Your task to perform on an android device: toggle airplane mode Image 0: 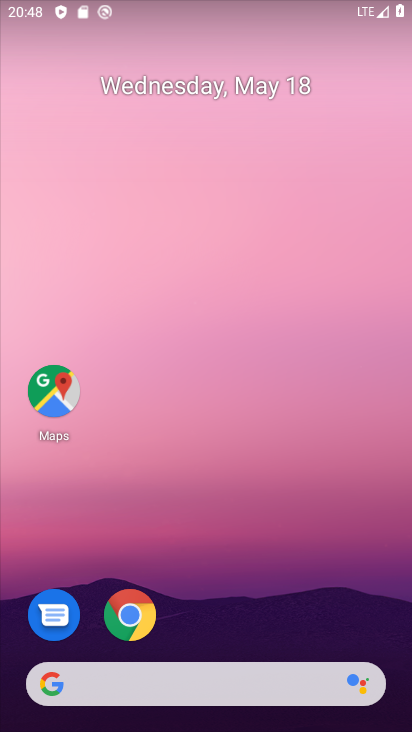
Step 0: drag from (200, 681) to (185, 251)
Your task to perform on an android device: toggle airplane mode Image 1: 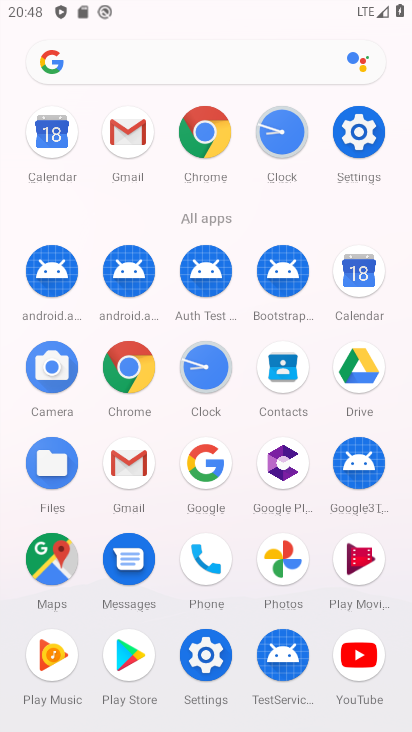
Step 1: click (366, 136)
Your task to perform on an android device: toggle airplane mode Image 2: 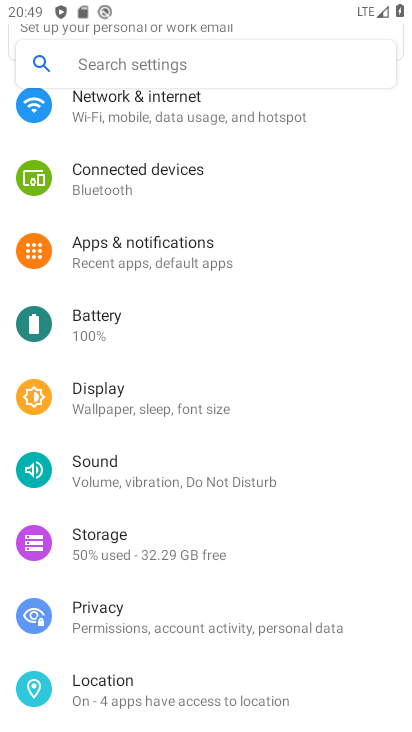
Step 2: click (118, 110)
Your task to perform on an android device: toggle airplane mode Image 3: 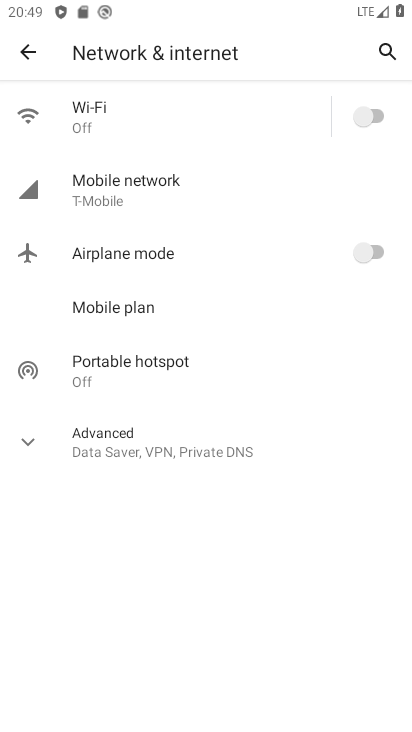
Step 3: click (375, 239)
Your task to perform on an android device: toggle airplane mode Image 4: 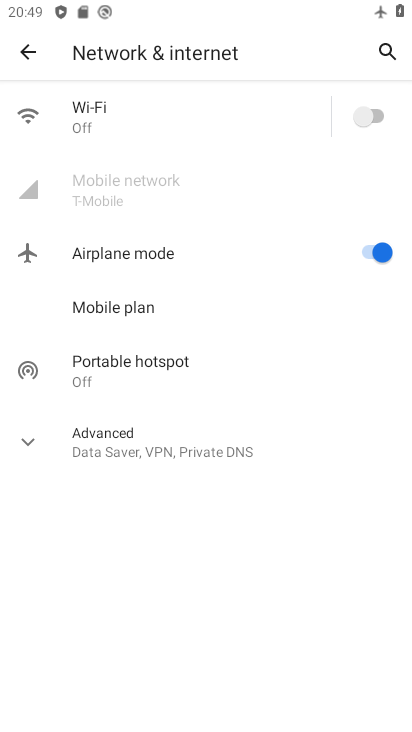
Step 4: task complete